Your task to perform on an android device: turn vacation reply on in the gmail app Image 0: 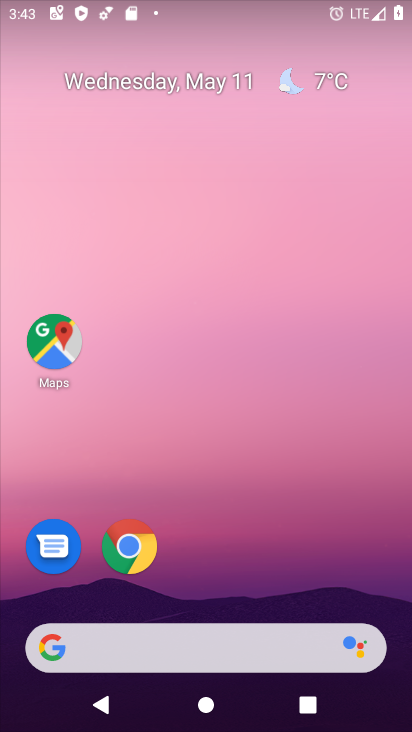
Step 0: drag from (265, 615) to (268, 23)
Your task to perform on an android device: turn vacation reply on in the gmail app Image 1: 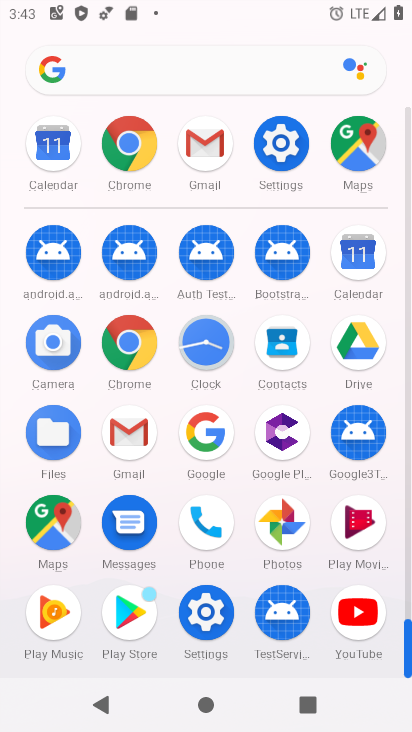
Step 1: click (111, 428)
Your task to perform on an android device: turn vacation reply on in the gmail app Image 2: 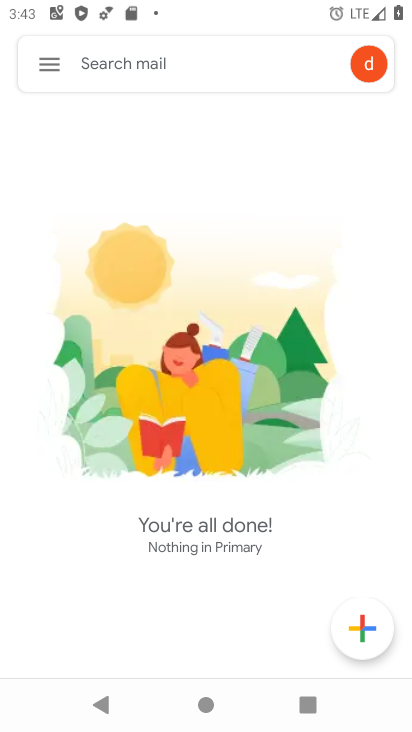
Step 2: click (54, 68)
Your task to perform on an android device: turn vacation reply on in the gmail app Image 3: 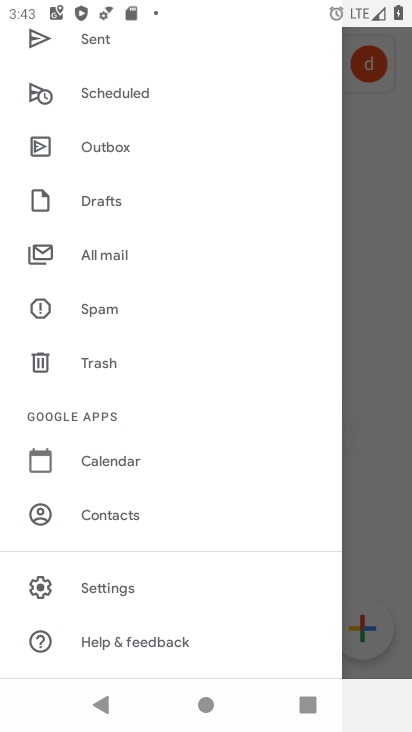
Step 3: click (134, 582)
Your task to perform on an android device: turn vacation reply on in the gmail app Image 4: 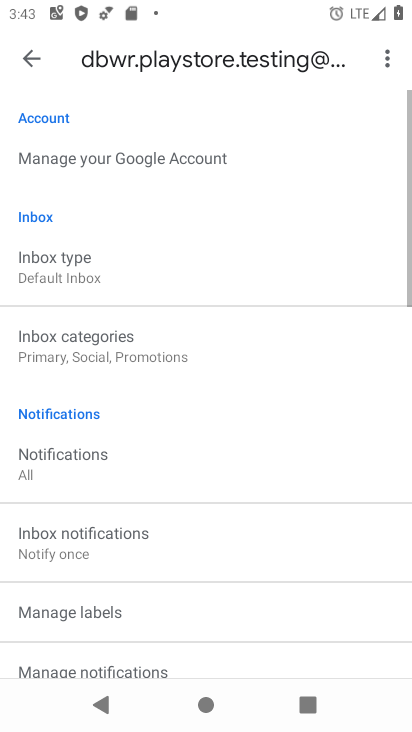
Step 4: drag from (194, 625) to (218, 79)
Your task to perform on an android device: turn vacation reply on in the gmail app Image 5: 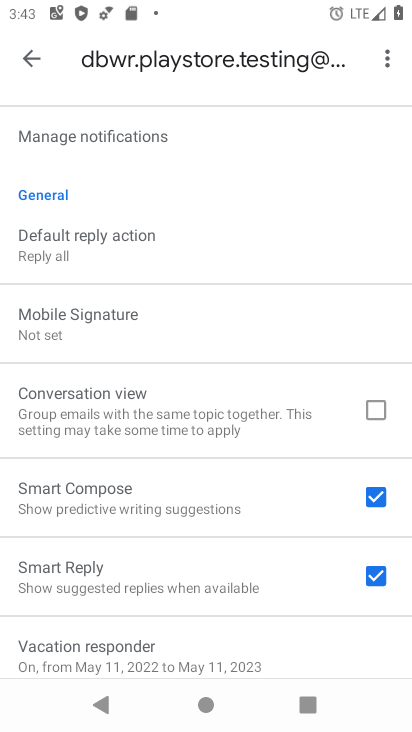
Step 5: click (143, 647)
Your task to perform on an android device: turn vacation reply on in the gmail app Image 6: 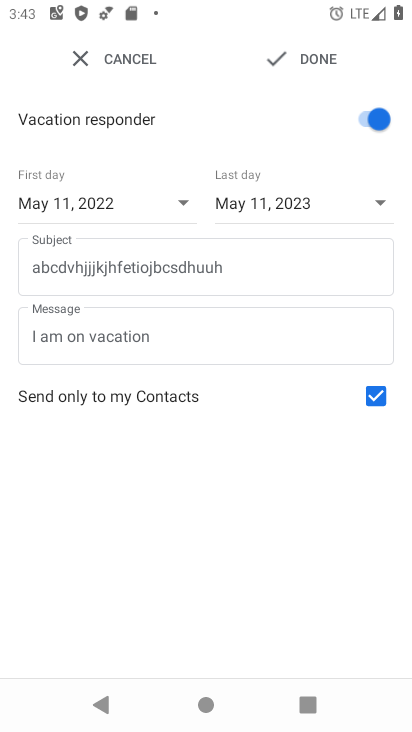
Step 6: click (308, 62)
Your task to perform on an android device: turn vacation reply on in the gmail app Image 7: 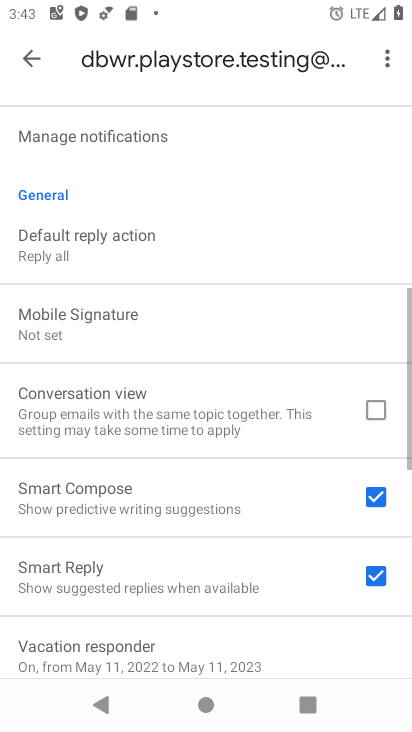
Step 7: task complete